Your task to perform on an android device: add a contact Image 0: 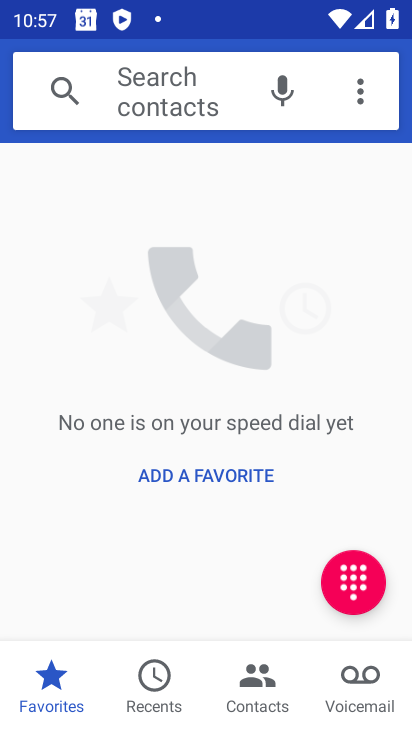
Step 0: click (247, 687)
Your task to perform on an android device: add a contact Image 1: 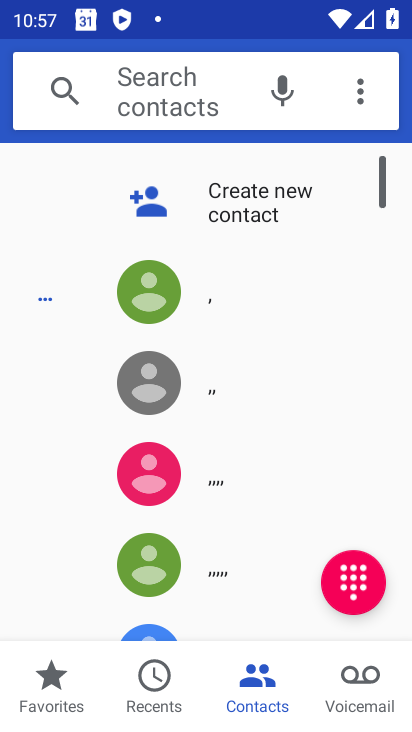
Step 1: click (247, 195)
Your task to perform on an android device: add a contact Image 2: 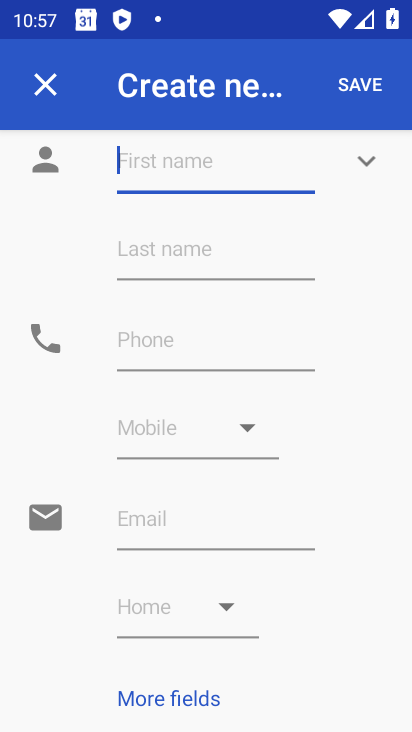
Step 2: click (217, 159)
Your task to perform on an android device: add a contact Image 3: 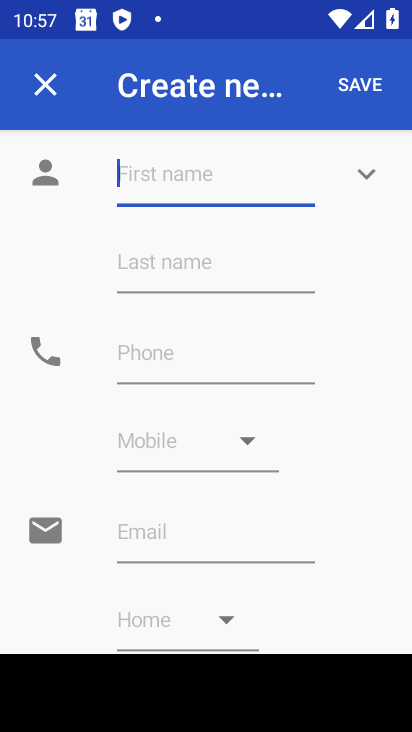
Step 3: type "hghghg"
Your task to perform on an android device: add a contact Image 4: 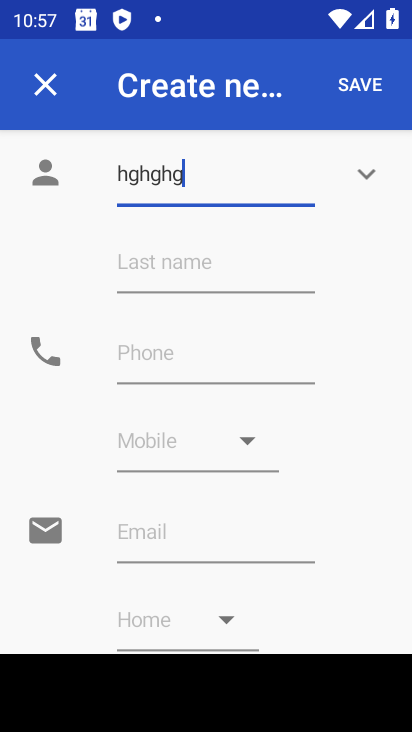
Step 4: type ""
Your task to perform on an android device: add a contact Image 5: 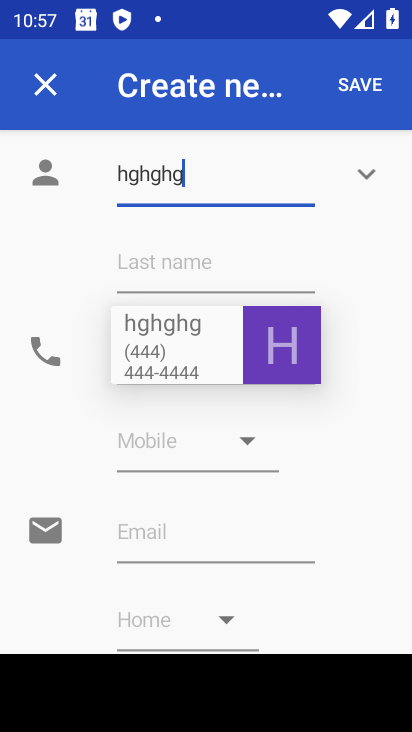
Step 5: drag from (378, 88) to (411, 342)
Your task to perform on an android device: add a contact Image 6: 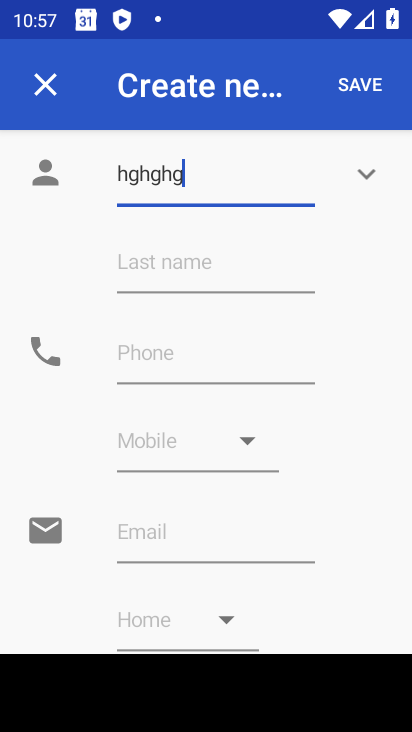
Step 6: type "nbbn"
Your task to perform on an android device: add a contact Image 7: 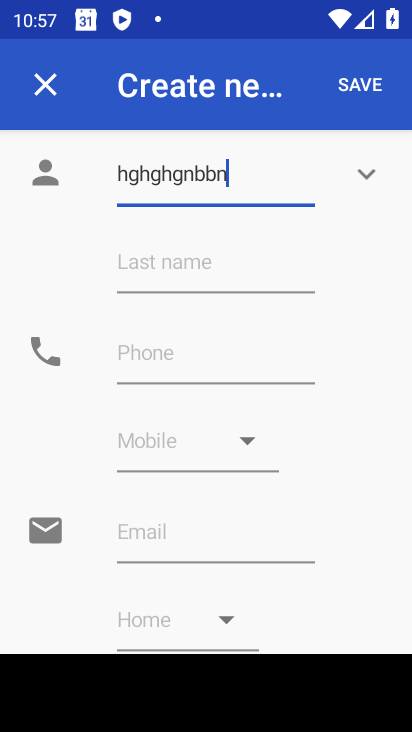
Step 7: type ""
Your task to perform on an android device: add a contact Image 8: 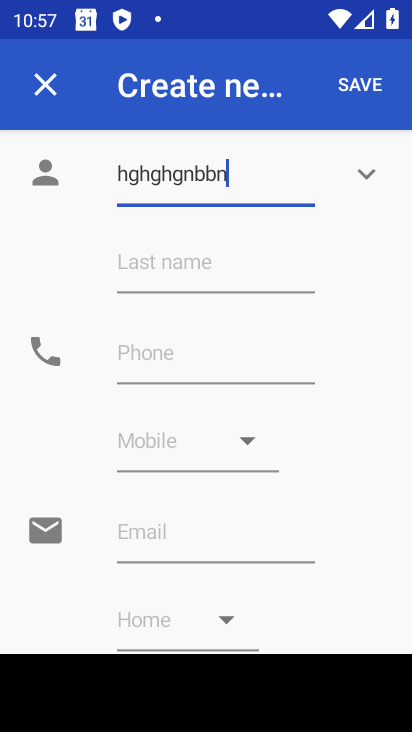
Step 8: drag from (411, 342) to (402, 126)
Your task to perform on an android device: add a contact Image 9: 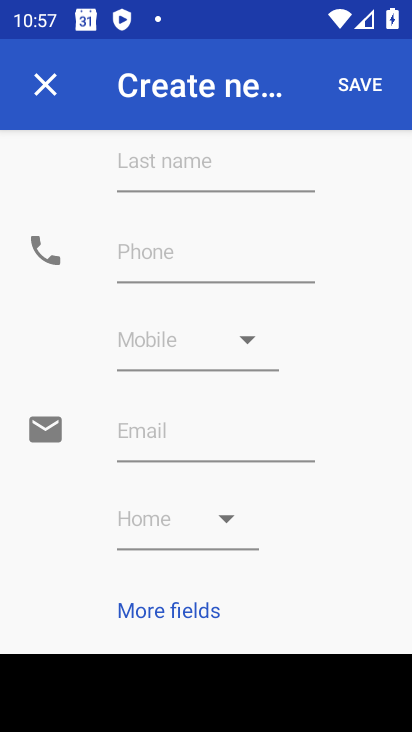
Step 9: click (369, 82)
Your task to perform on an android device: add a contact Image 10: 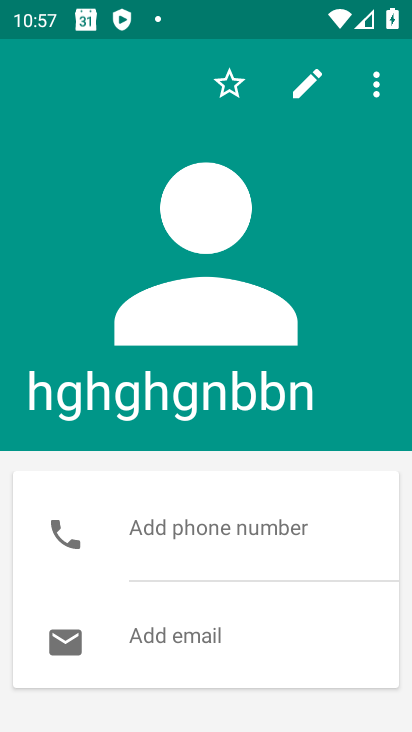
Step 10: task complete